Your task to perform on an android device: clear all cookies in the chrome app Image 0: 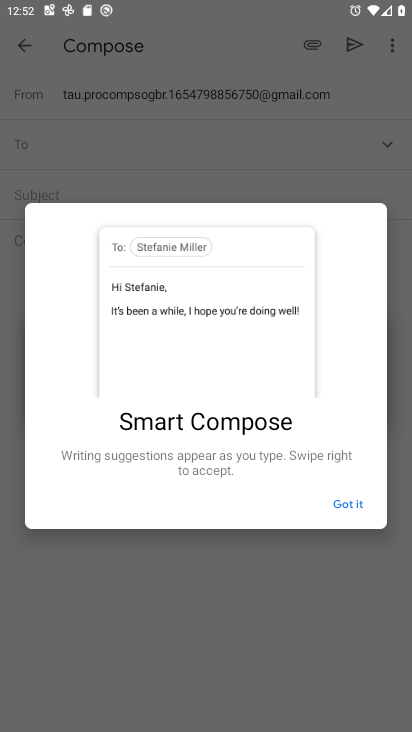
Step 0: press home button
Your task to perform on an android device: clear all cookies in the chrome app Image 1: 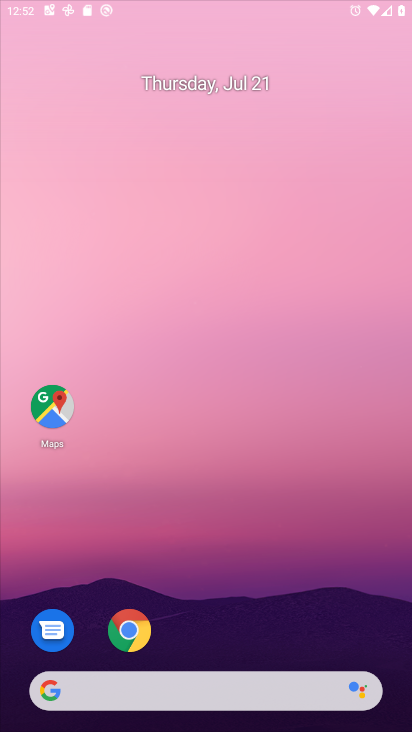
Step 1: drag from (232, 556) to (227, 13)
Your task to perform on an android device: clear all cookies in the chrome app Image 2: 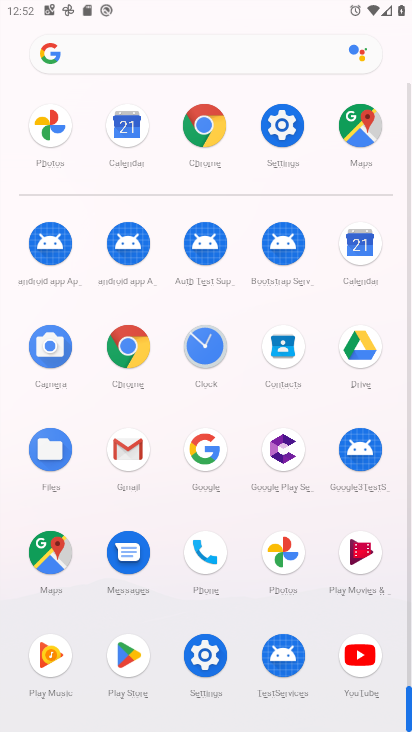
Step 2: click (117, 347)
Your task to perform on an android device: clear all cookies in the chrome app Image 3: 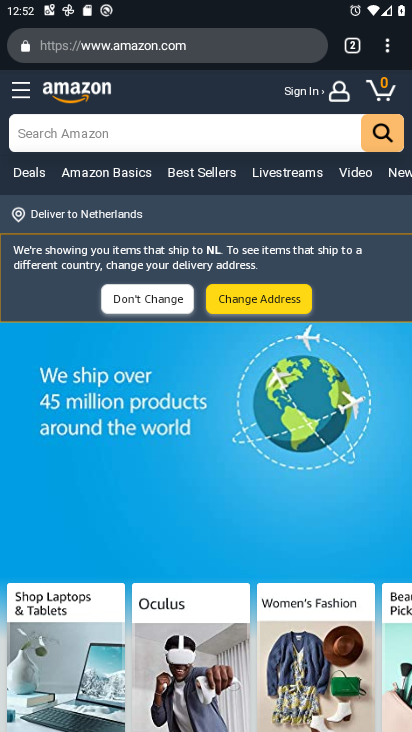
Step 3: drag from (387, 37) to (253, 259)
Your task to perform on an android device: clear all cookies in the chrome app Image 4: 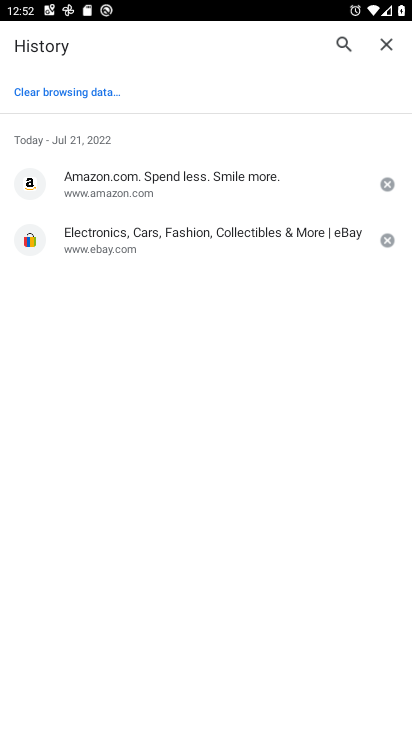
Step 4: click (43, 99)
Your task to perform on an android device: clear all cookies in the chrome app Image 5: 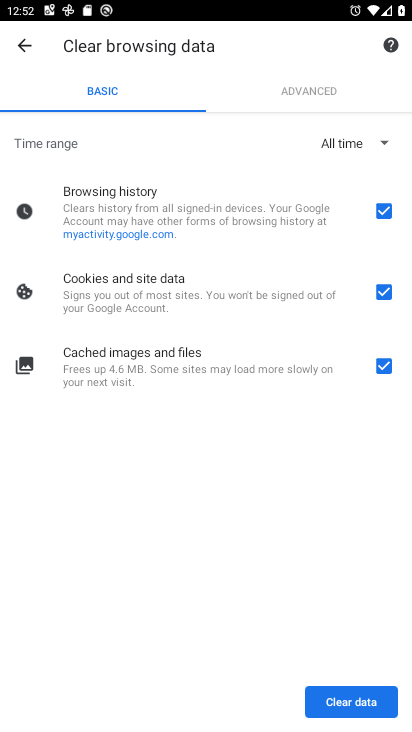
Step 5: click (387, 203)
Your task to perform on an android device: clear all cookies in the chrome app Image 6: 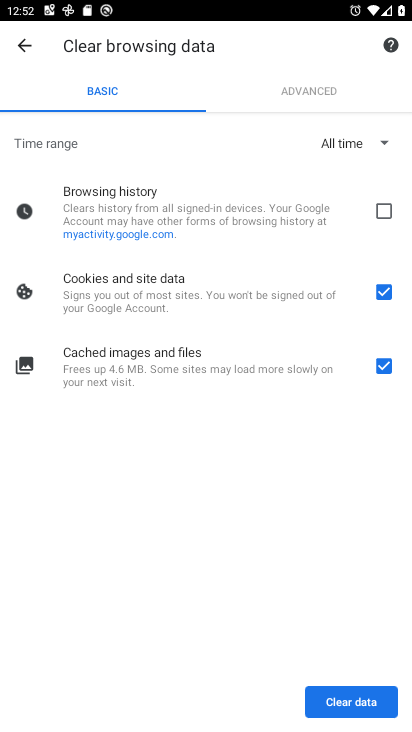
Step 6: click (368, 372)
Your task to perform on an android device: clear all cookies in the chrome app Image 7: 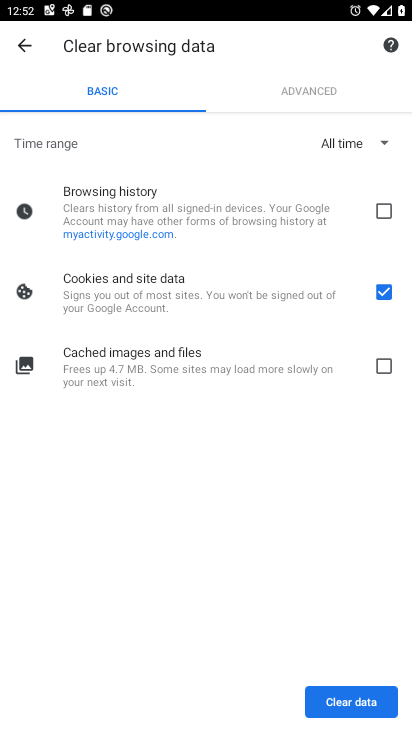
Step 7: click (328, 705)
Your task to perform on an android device: clear all cookies in the chrome app Image 8: 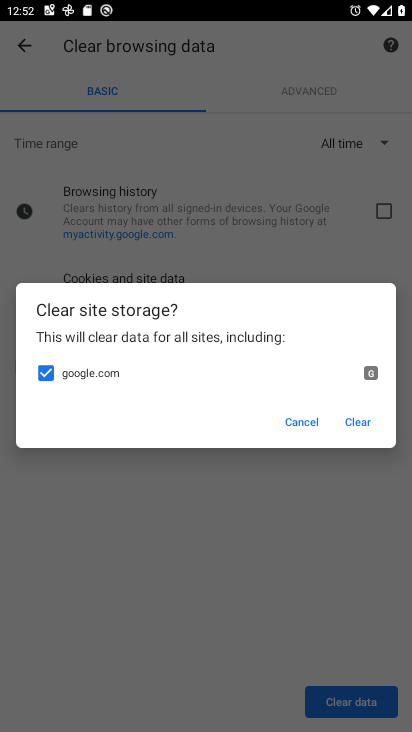
Step 8: click (356, 417)
Your task to perform on an android device: clear all cookies in the chrome app Image 9: 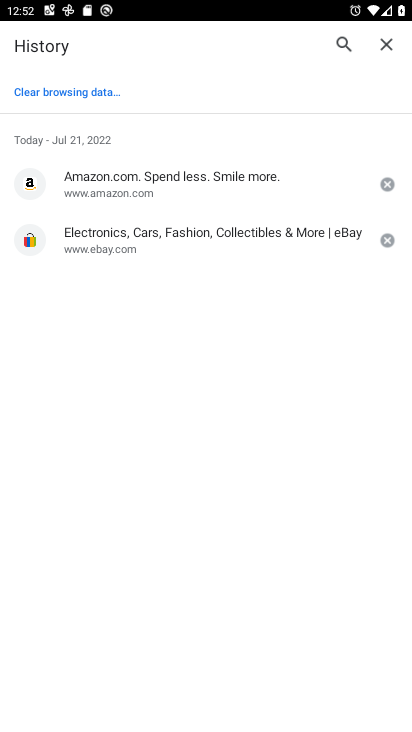
Step 9: task complete